Your task to perform on an android device: see creations saved in the google photos Image 0: 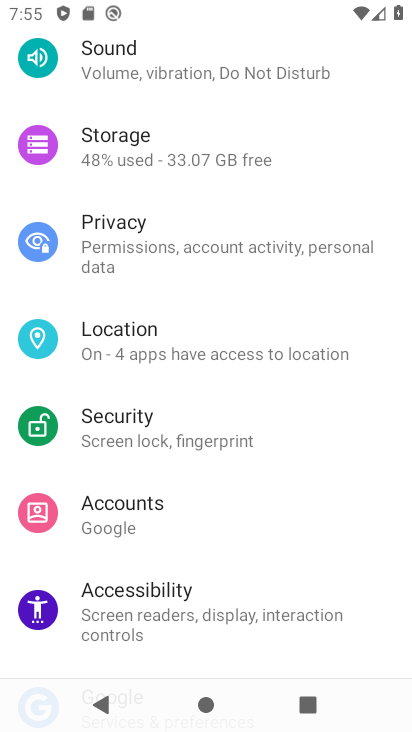
Step 0: press home button
Your task to perform on an android device: see creations saved in the google photos Image 1: 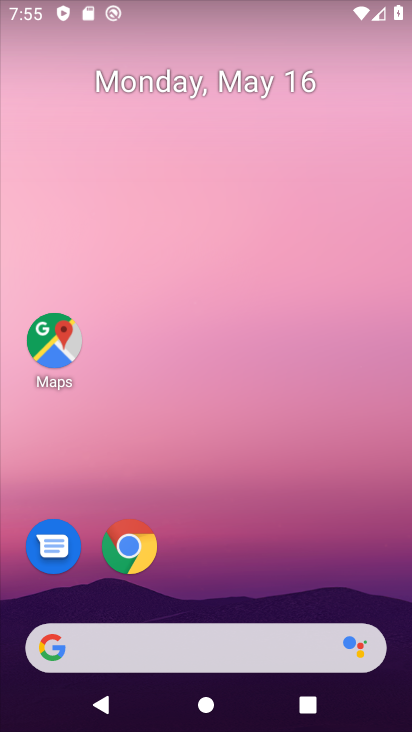
Step 1: drag from (276, 574) to (272, 16)
Your task to perform on an android device: see creations saved in the google photos Image 2: 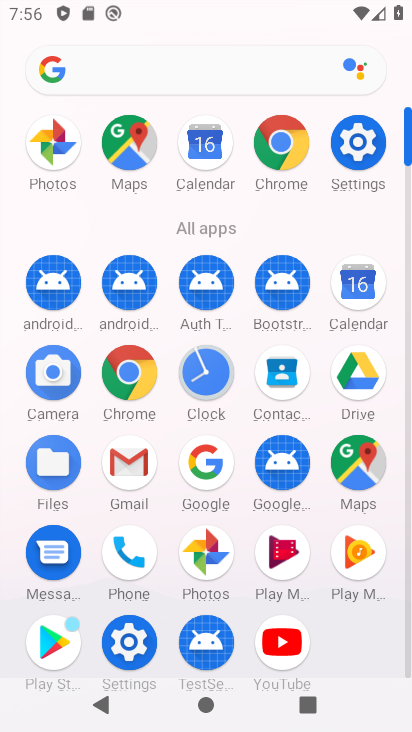
Step 2: click (43, 144)
Your task to perform on an android device: see creations saved in the google photos Image 3: 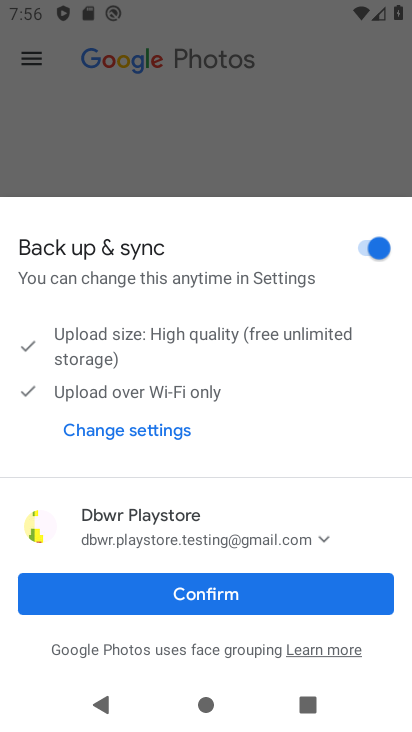
Step 3: click (240, 594)
Your task to perform on an android device: see creations saved in the google photos Image 4: 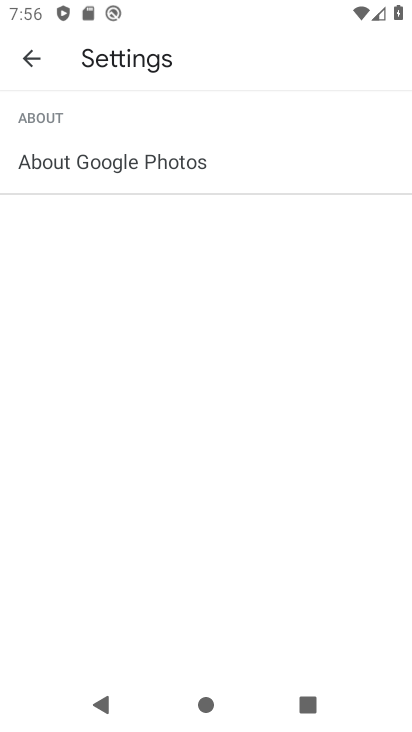
Step 4: click (16, 71)
Your task to perform on an android device: see creations saved in the google photos Image 5: 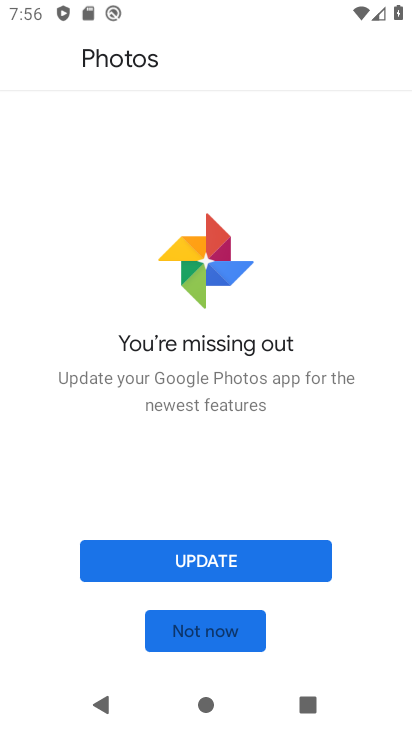
Step 5: click (264, 548)
Your task to perform on an android device: see creations saved in the google photos Image 6: 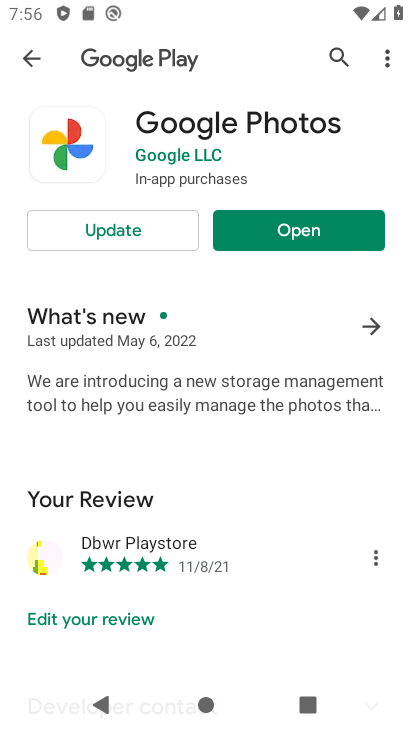
Step 6: click (151, 223)
Your task to perform on an android device: see creations saved in the google photos Image 7: 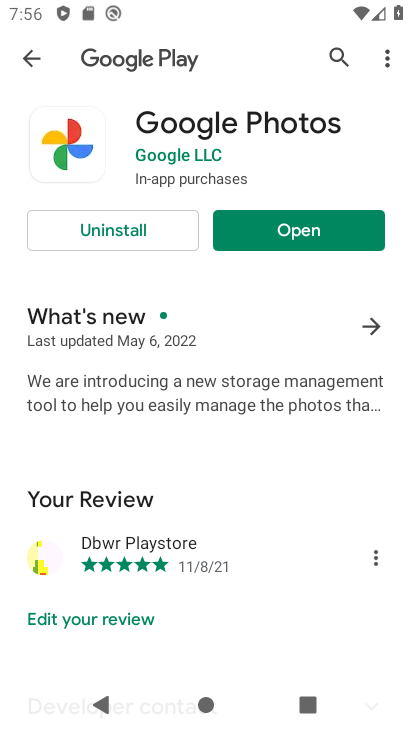
Step 7: task complete